Your task to perform on an android device: Go to internet settings Image 0: 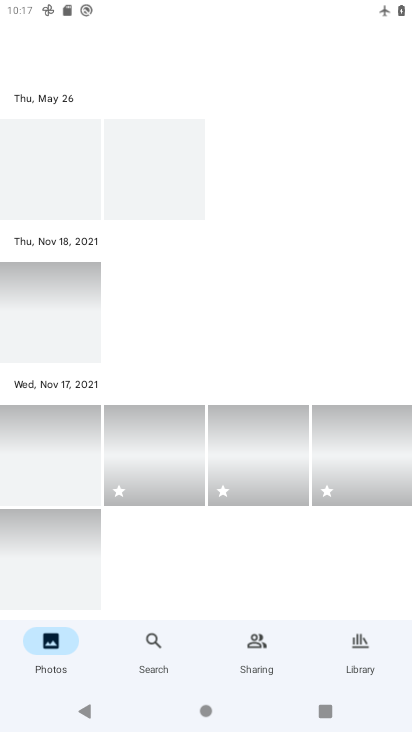
Step 0: press back button
Your task to perform on an android device: Go to internet settings Image 1: 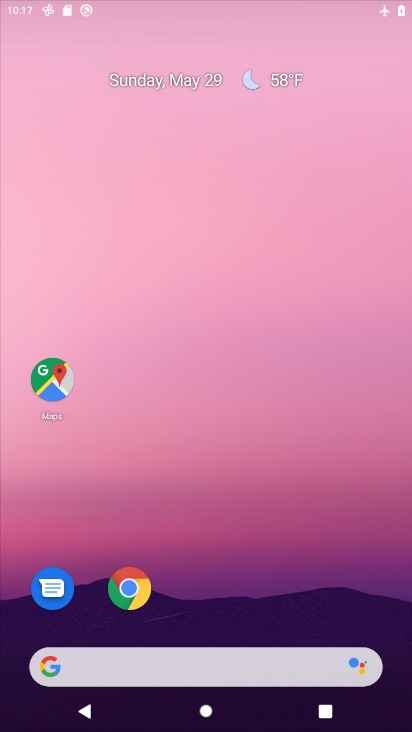
Step 1: press home button
Your task to perform on an android device: Go to internet settings Image 2: 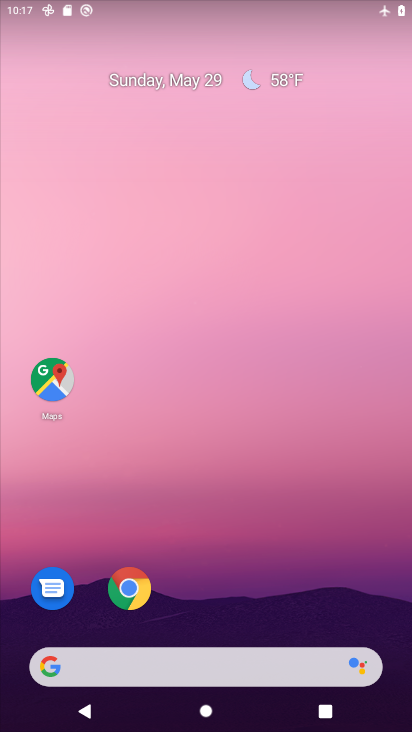
Step 2: drag from (271, 569) to (233, 108)
Your task to perform on an android device: Go to internet settings Image 3: 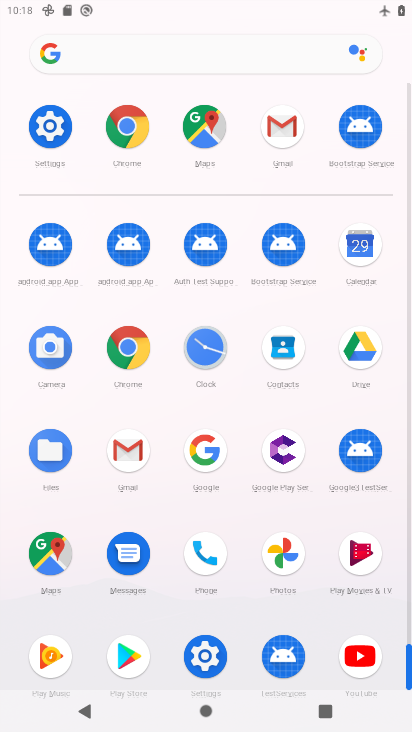
Step 3: click (55, 119)
Your task to perform on an android device: Go to internet settings Image 4: 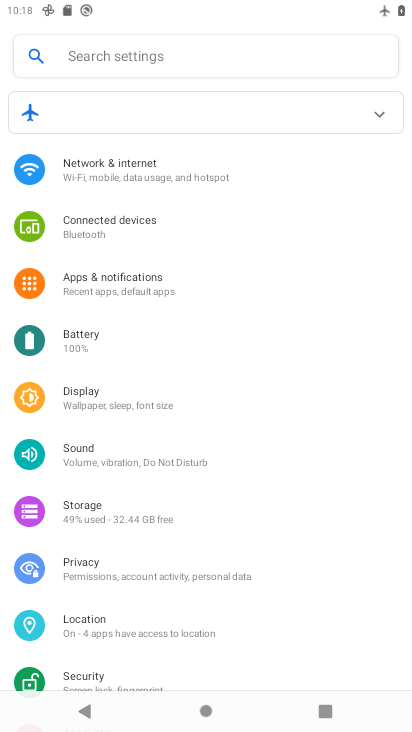
Step 4: click (112, 155)
Your task to perform on an android device: Go to internet settings Image 5: 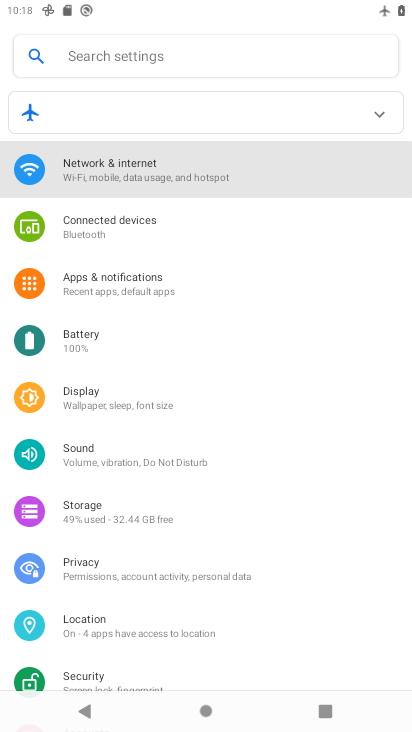
Step 5: click (114, 163)
Your task to perform on an android device: Go to internet settings Image 6: 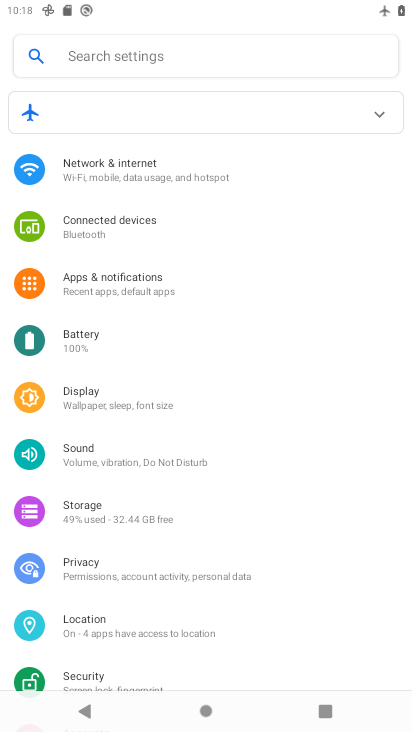
Step 6: click (114, 163)
Your task to perform on an android device: Go to internet settings Image 7: 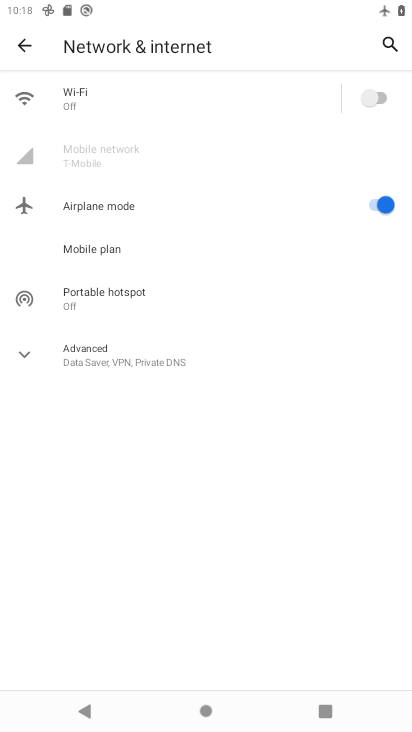
Step 7: task complete